Your task to perform on an android device: turn on showing notifications on the lock screen Image 0: 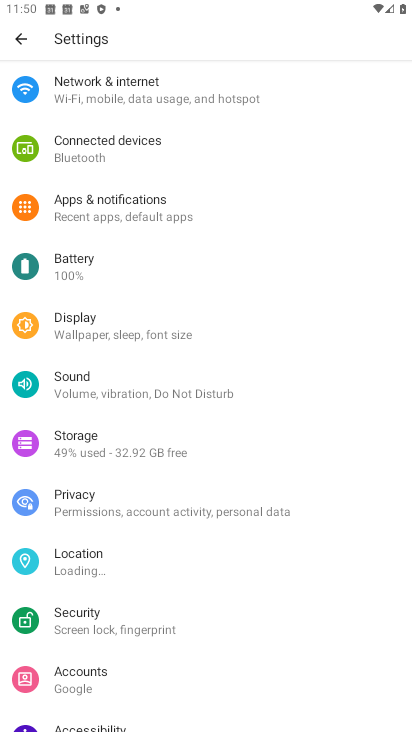
Step 0: press home button
Your task to perform on an android device: turn on showing notifications on the lock screen Image 1: 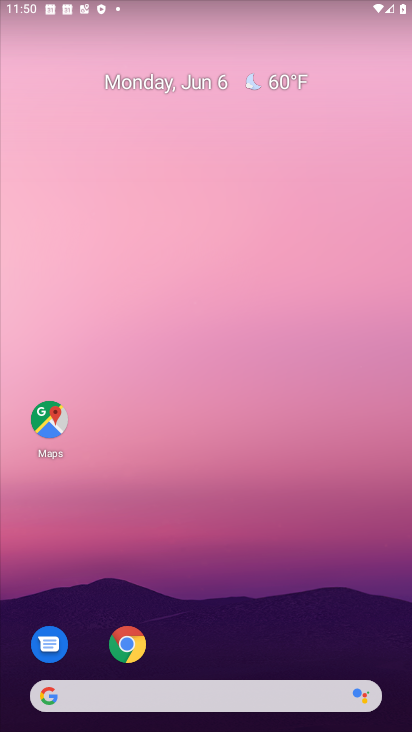
Step 1: drag from (223, 629) to (262, 98)
Your task to perform on an android device: turn on showing notifications on the lock screen Image 2: 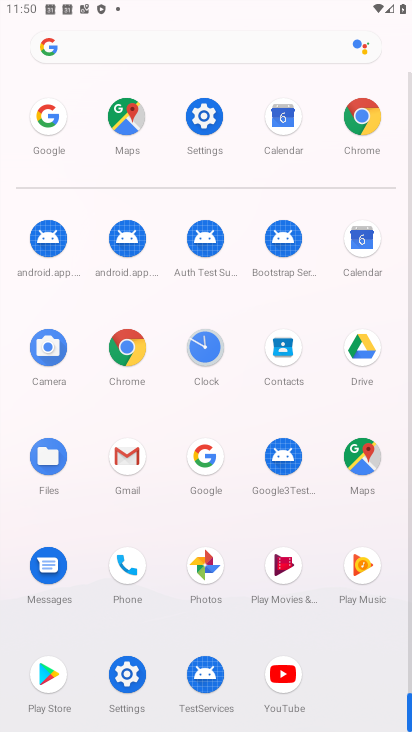
Step 2: click (205, 134)
Your task to perform on an android device: turn on showing notifications on the lock screen Image 3: 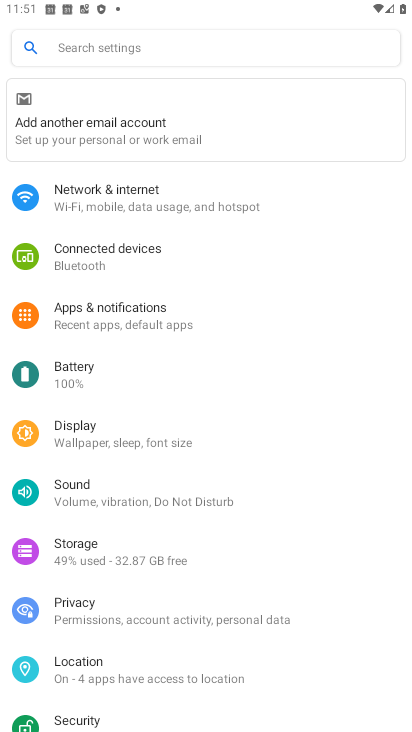
Step 3: click (176, 325)
Your task to perform on an android device: turn on showing notifications on the lock screen Image 4: 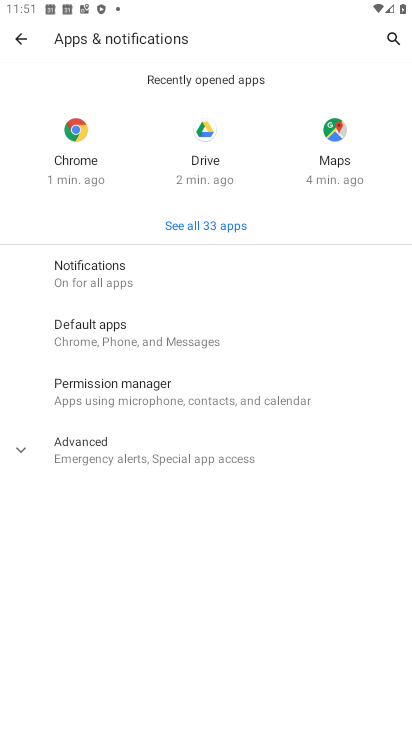
Step 4: click (169, 278)
Your task to perform on an android device: turn on showing notifications on the lock screen Image 5: 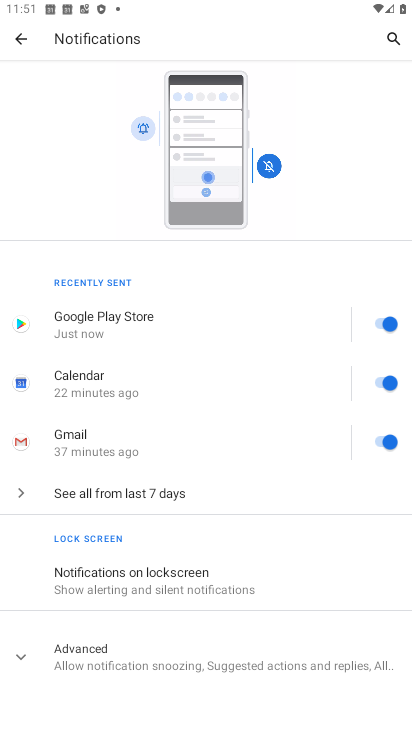
Step 5: drag from (163, 572) to (199, 314)
Your task to perform on an android device: turn on showing notifications on the lock screen Image 6: 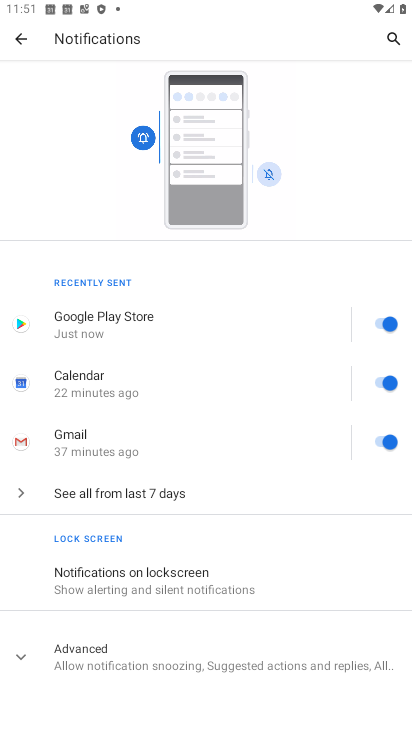
Step 6: click (204, 583)
Your task to perform on an android device: turn on showing notifications on the lock screen Image 7: 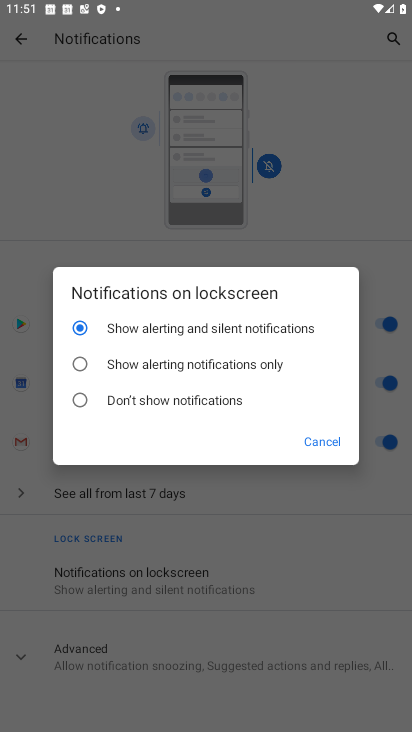
Step 7: task complete